Your task to perform on an android device: turn smart compose on in the gmail app Image 0: 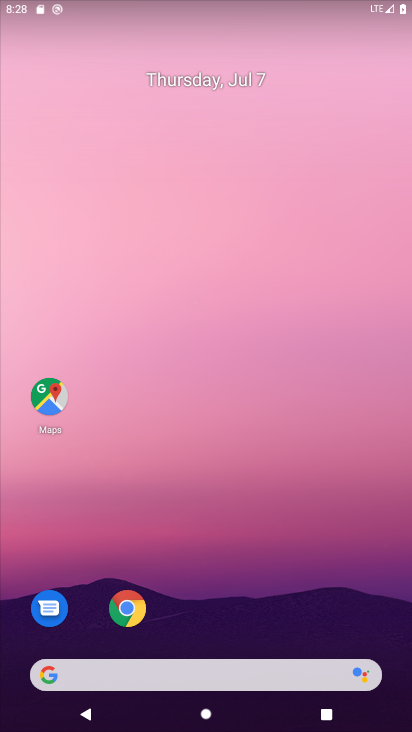
Step 0: drag from (338, 633) to (362, 132)
Your task to perform on an android device: turn smart compose on in the gmail app Image 1: 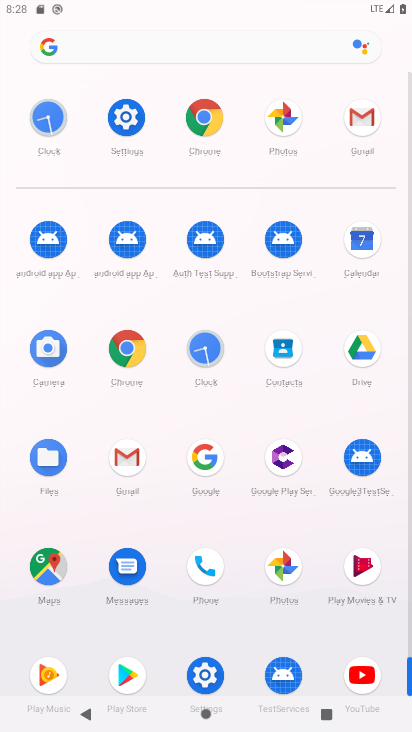
Step 1: click (125, 456)
Your task to perform on an android device: turn smart compose on in the gmail app Image 2: 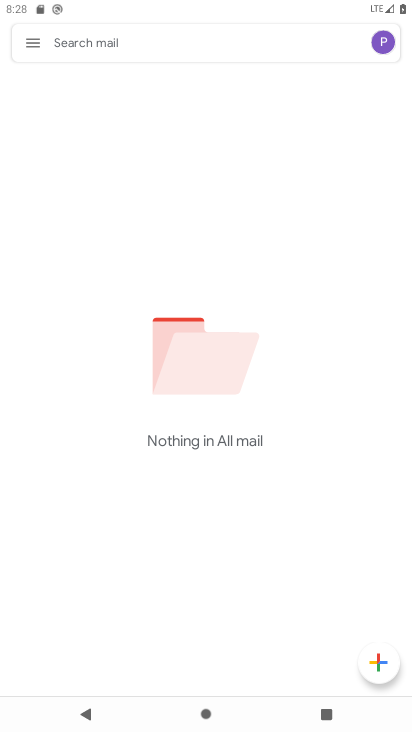
Step 2: click (28, 41)
Your task to perform on an android device: turn smart compose on in the gmail app Image 3: 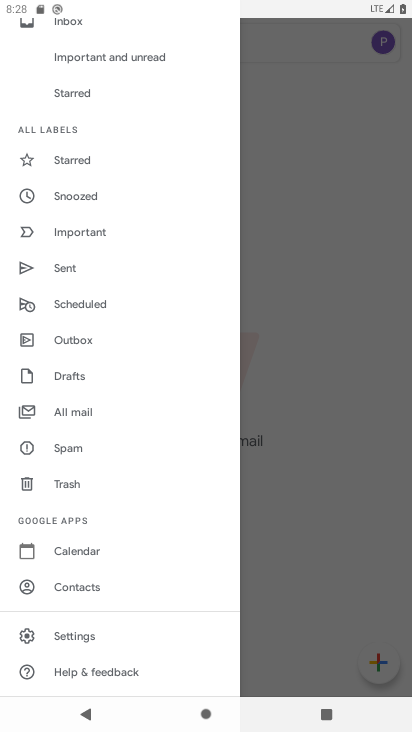
Step 3: drag from (182, 323) to (193, 232)
Your task to perform on an android device: turn smart compose on in the gmail app Image 4: 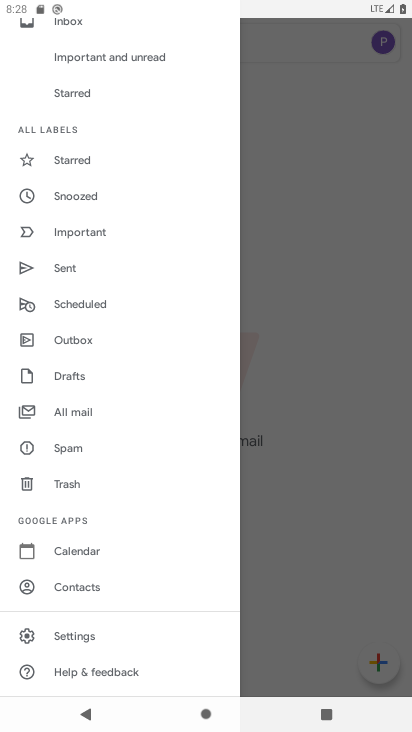
Step 4: click (132, 633)
Your task to perform on an android device: turn smart compose on in the gmail app Image 5: 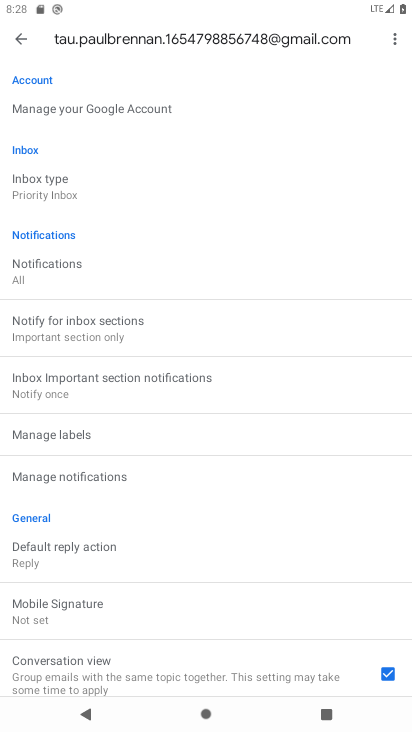
Step 5: task complete